Your task to perform on an android device: toggle sleep mode Image 0: 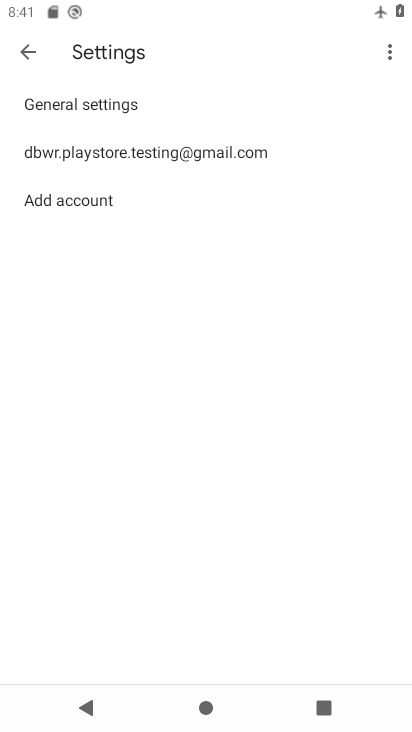
Step 0: press home button
Your task to perform on an android device: toggle sleep mode Image 1: 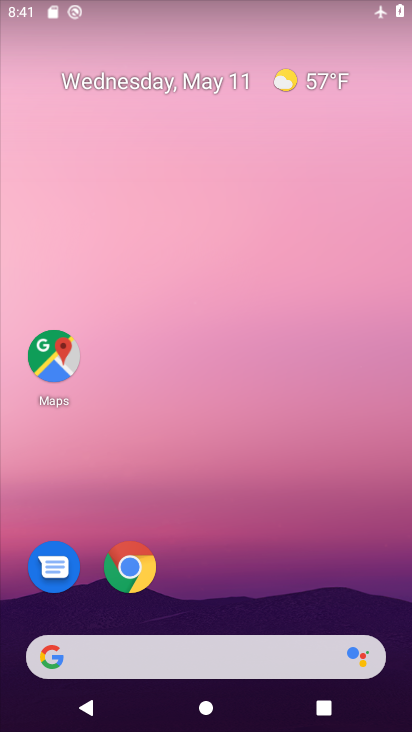
Step 1: drag from (271, 496) to (235, 39)
Your task to perform on an android device: toggle sleep mode Image 2: 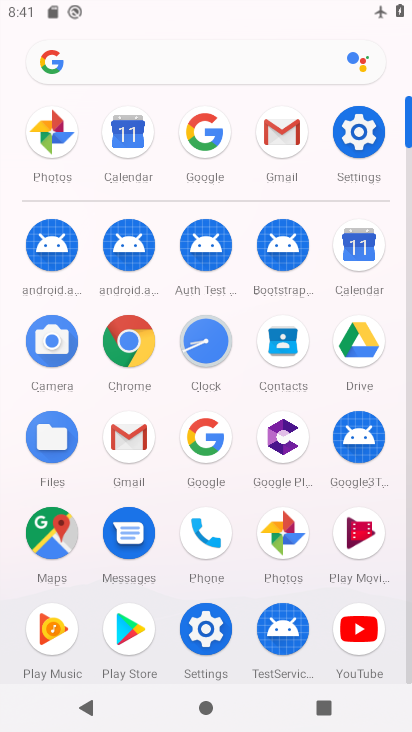
Step 2: click (354, 137)
Your task to perform on an android device: toggle sleep mode Image 3: 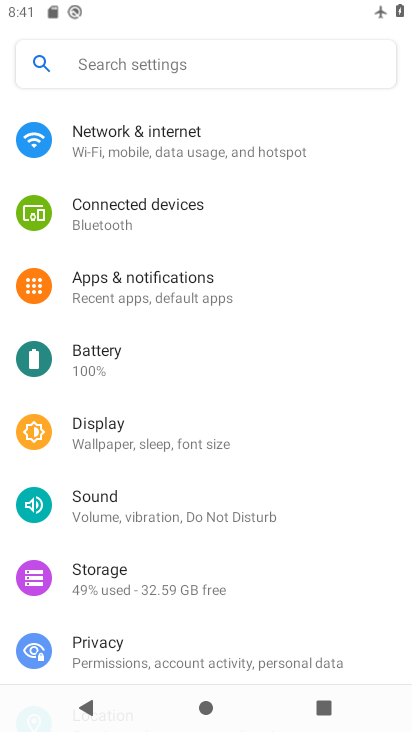
Step 3: click (166, 441)
Your task to perform on an android device: toggle sleep mode Image 4: 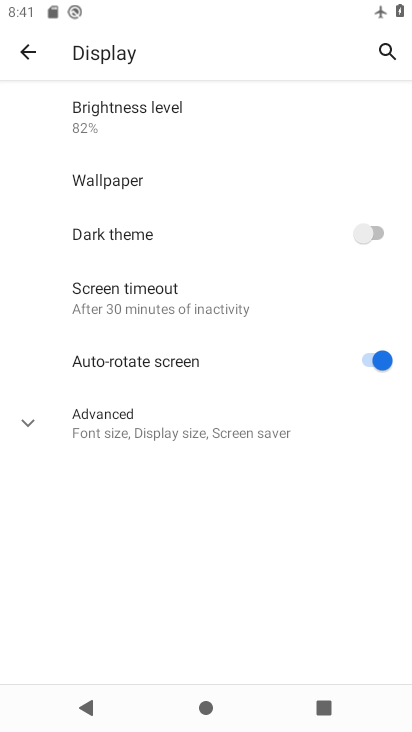
Step 4: task complete